Your task to perform on an android device: turn on the 24-hour format for clock Image 0: 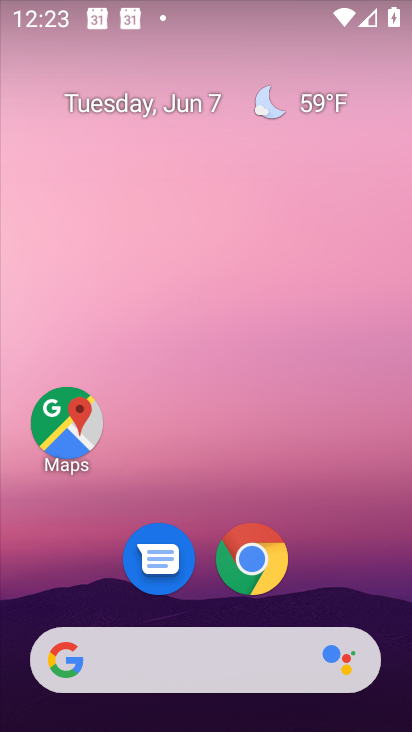
Step 0: drag from (321, 595) to (371, 89)
Your task to perform on an android device: turn on the 24-hour format for clock Image 1: 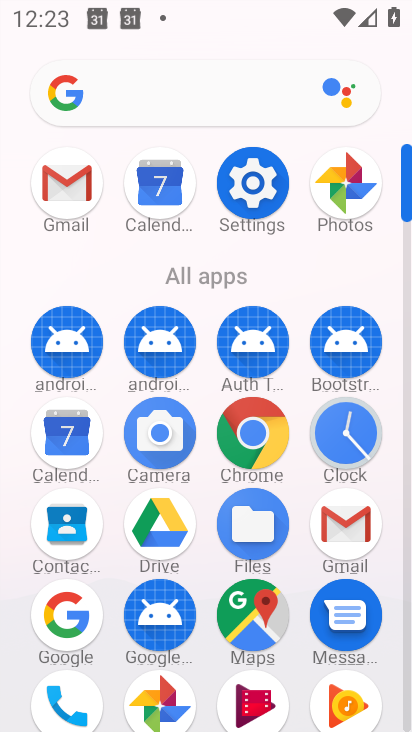
Step 1: click (340, 411)
Your task to perform on an android device: turn on the 24-hour format for clock Image 2: 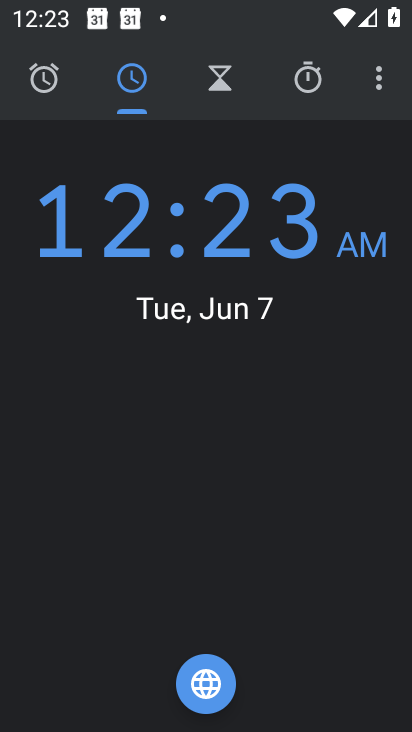
Step 2: click (369, 84)
Your task to perform on an android device: turn on the 24-hour format for clock Image 3: 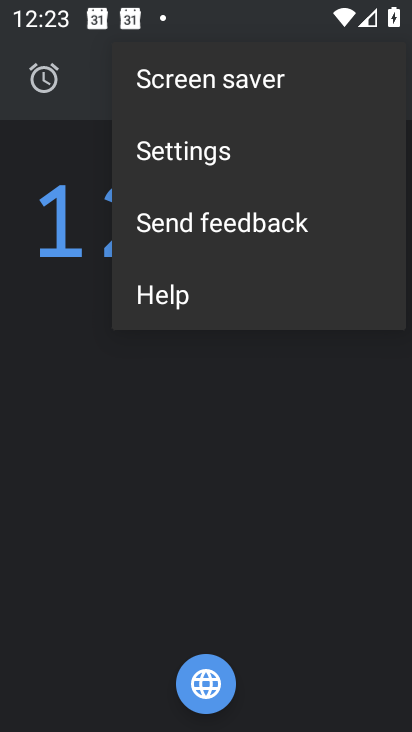
Step 3: click (213, 151)
Your task to perform on an android device: turn on the 24-hour format for clock Image 4: 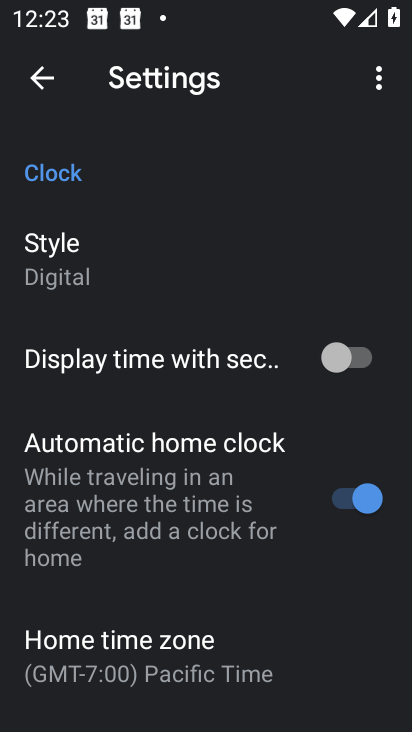
Step 4: drag from (147, 637) to (208, 110)
Your task to perform on an android device: turn on the 24-hour format for clock Image 5: 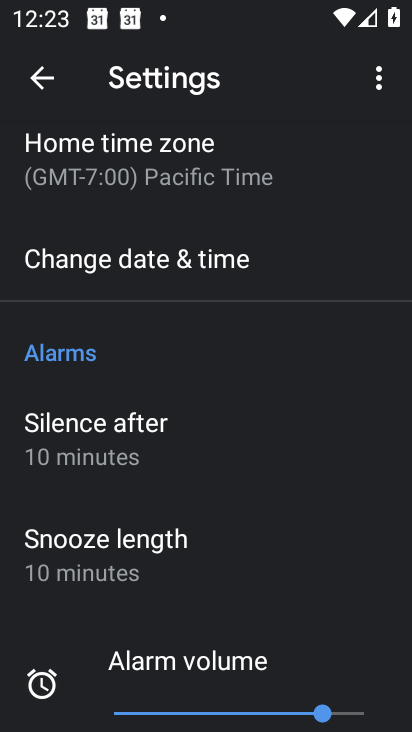
Step 5: drag from (190, 637) to (281, 231)
Your task to perform on an android device: turn on the 24-hour format for clock Image 6: 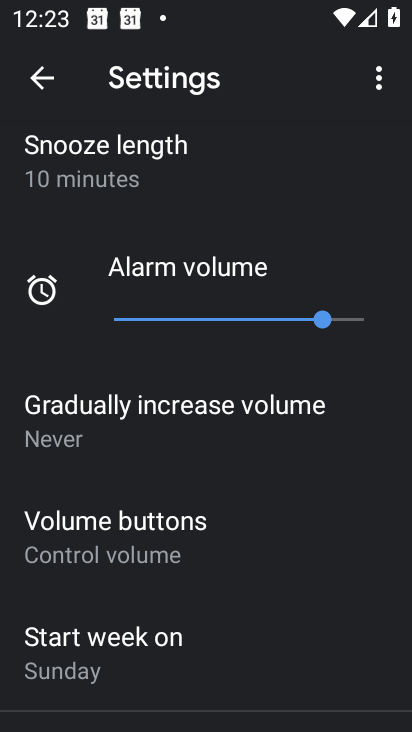
Step 6: drag from (170, 660) to (224, 102)
Your task to perform on an android device: turn on the 24-hour format for clock Image 7: 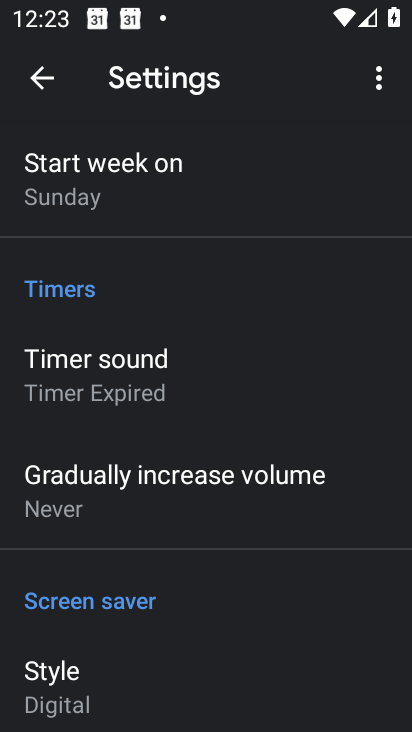
Step 7: drag from (191, 629) to (205, 89)
Your task to perform on an android device: turn on the 24-hour format for clock Image 8: 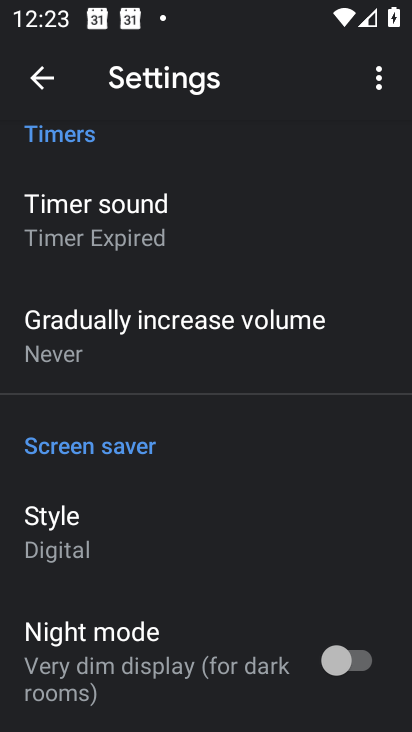
Step 8: drag from (175, 692) to (202, 47)
Your task to perform on an android device: turn on the 24-hour format for clock Image 9: 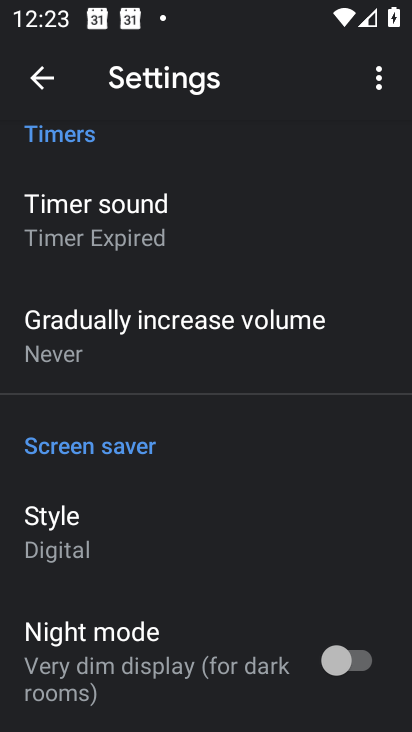
Step 9: drag from (189, 638) to (252, 0)
Your task to perform on an android device: turn on the 24-hour format for clock Image 10: 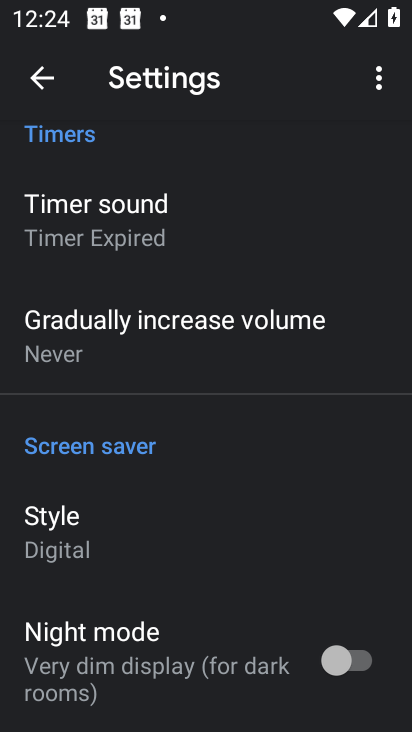
Step 10: drag from (197, 257) to (206, 158)
Your task to perform on an android device: turn on the 24-hour format for clock Image 11: 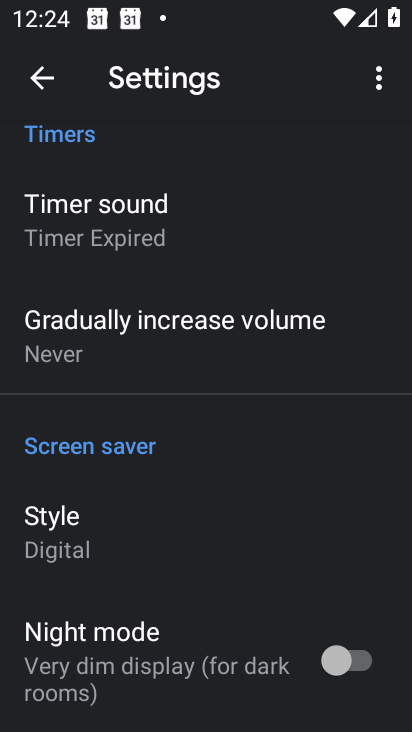
Step 11: drag from (224, 398) to (223, 657)
Your task to perform on an android device: turn on the 24-hour format for clock Image 12: 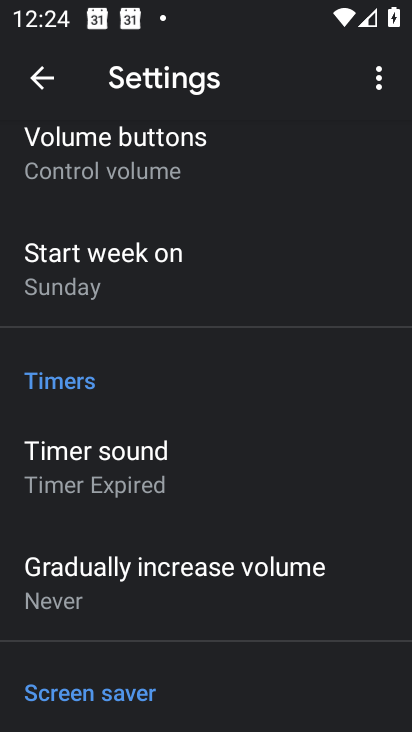
Step 12: drag from (192, 395) to (192, 602)
Your task to perform on an android device: turn on the 24-hour format for clock Image 13: 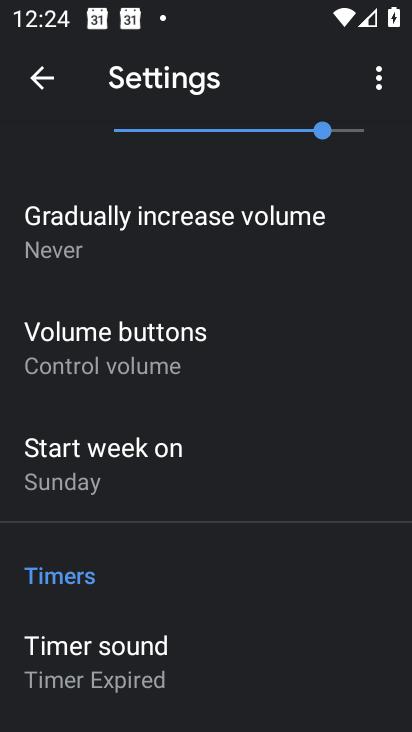
Step 13: drag from (176, 259) to (188, 584)
Your task to perform on an android device: turn on the 24-hour format for clock Image 14: 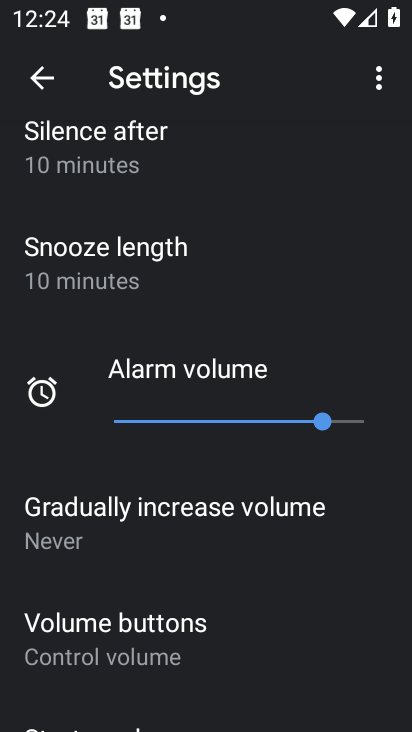
Step 14: drag from (216, 265) to (216, 556)
Your task to perform on an android device: turn on the 24-hour format for clock Image 15: 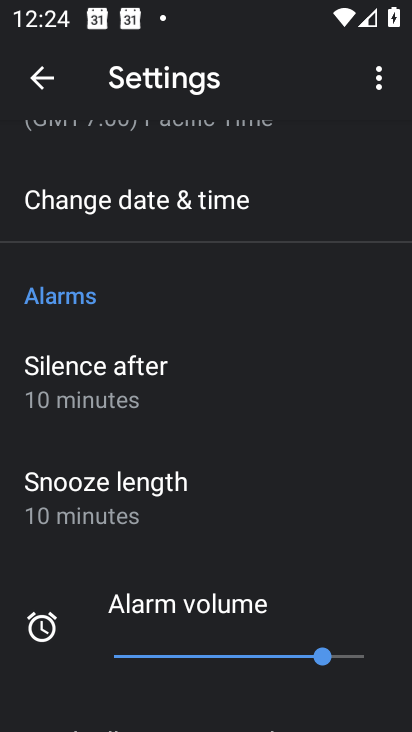
Step 15: click (173, 206)
Your task to perform on an android device: turn on the 24-hour format for clock Image 16: 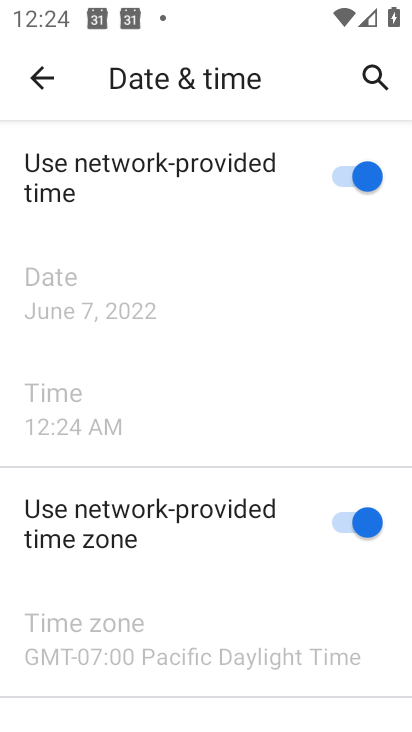
Step 16: drag from (175, 585) to (240, 0)
Your task to perform on an android device: turn on the 24-hour format for clock Image 17: 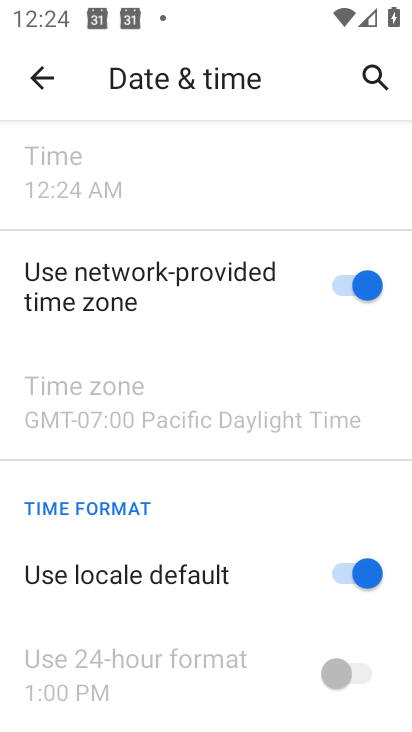
Step 17: click (341, 669)
Your task to perform on an android device: turn on the 24-hour format for clock Image 18: 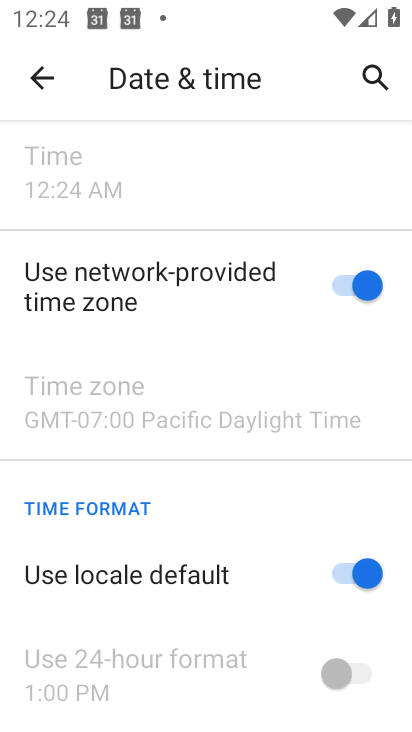
Step 18: click (355, 562)
Your task to perform on an android device: turn on the 24-hour format for clock Image 19: 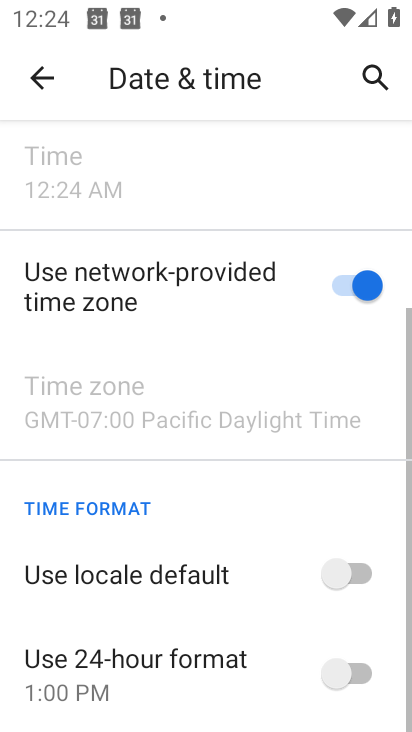
Step 19: task complete